Your task to perform on an android device: move an email to a new category in the gmail app Image 0: 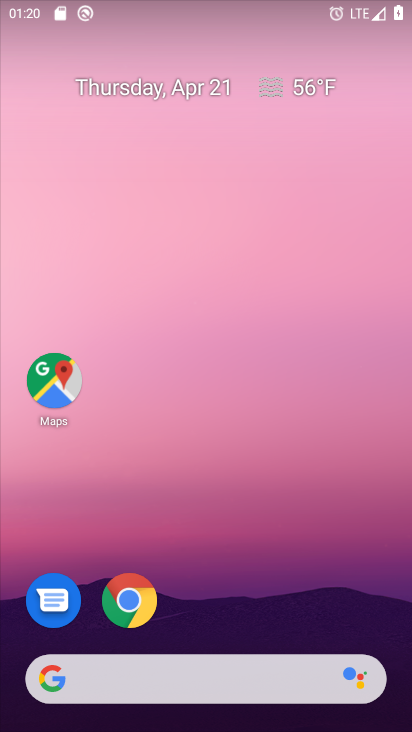
Step 0: drag from (289, 529) to (343, 41)
Your task to perform on an android device: move an email to a new category in the gmail app Image 1: 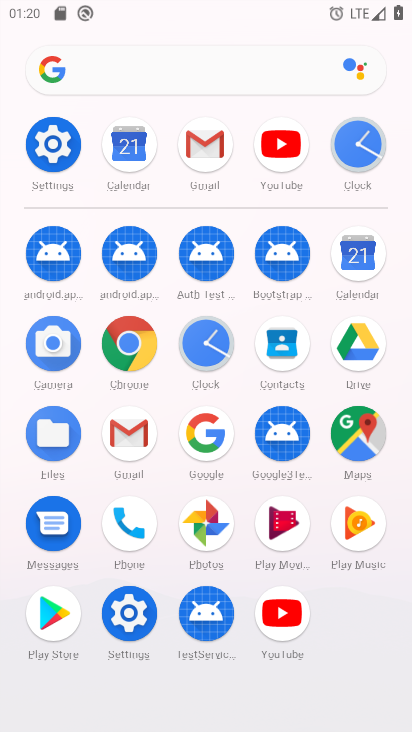
Step 1: click (212, 151)
Your task to perform on an android device: move an email to a new category in the gmail app Image 2: 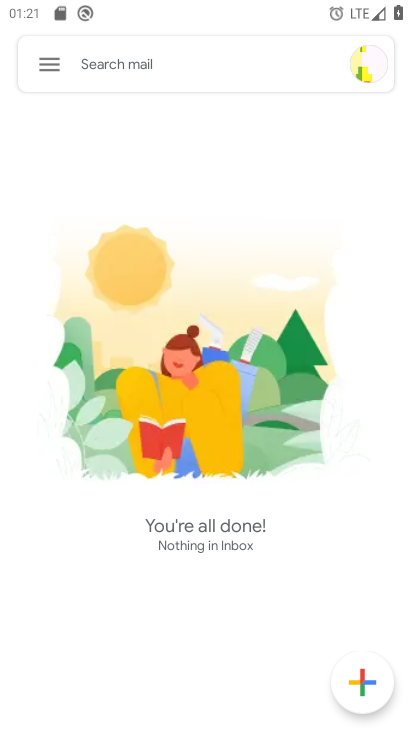
Step 2: click (50, 59)
Your task to perform on an android device: move an email to a new category in the gmail app Image 3: 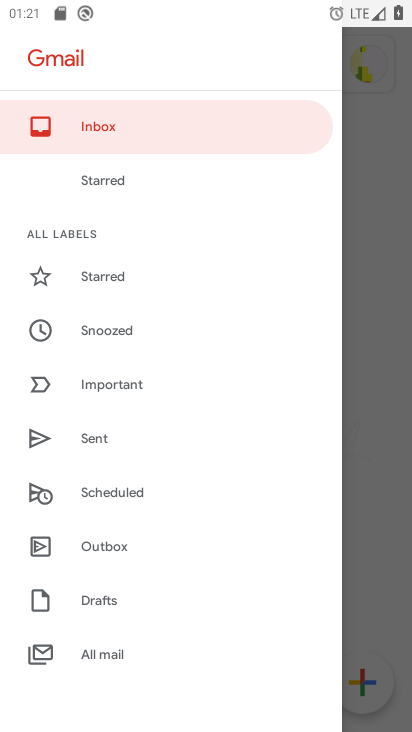
Step 3: click (107, 646)
Your task to perform on an android device: move an email to a new category in the gmail app Image 4: 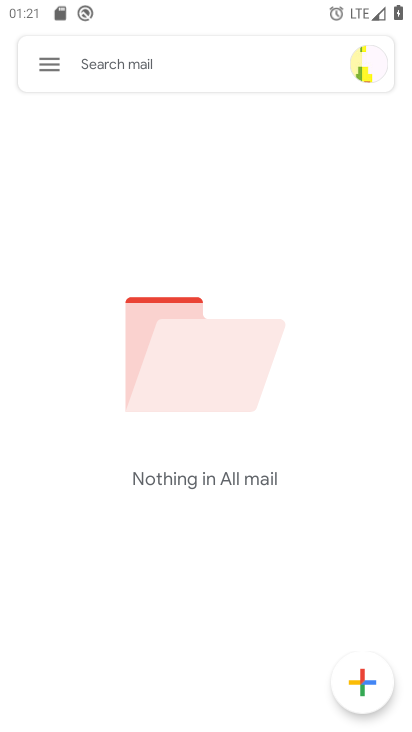
Step 4: task complete